Your task to perform on an android device: check google app version Image 0: 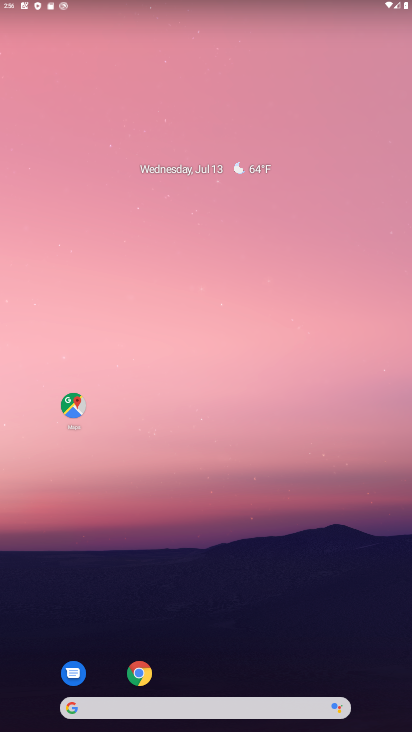
Step 0: drag from (305, 632) to (339, 88)
Your task to perform on an android device: check google app version Image 1: 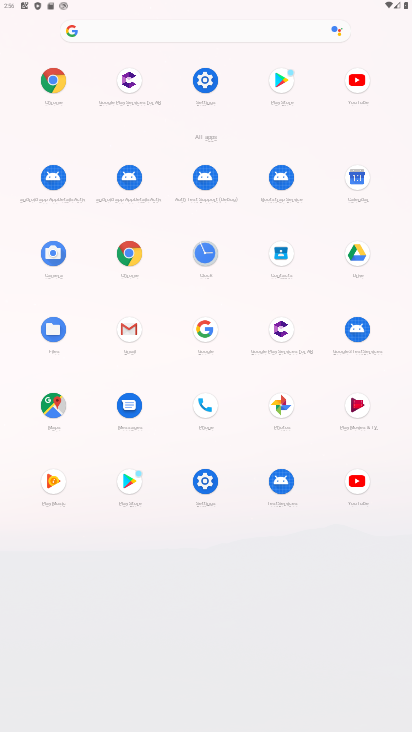
Step 1: click (211, 325)
Your task to perform on an android device: check google app version Image 2: 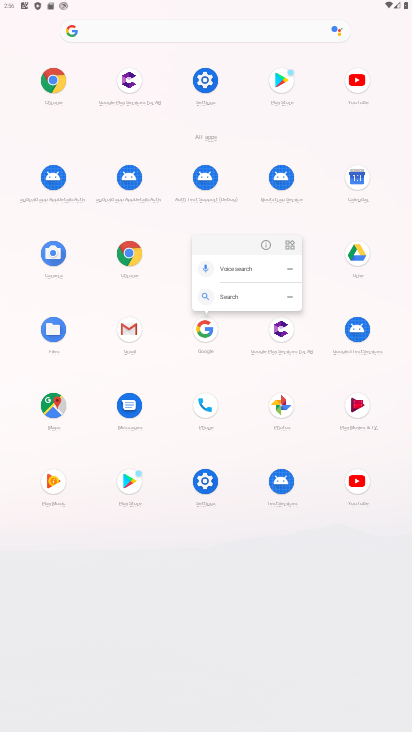
Step 2: click (262, 242)
Your task to perform on an android device: check google app version Image 3: 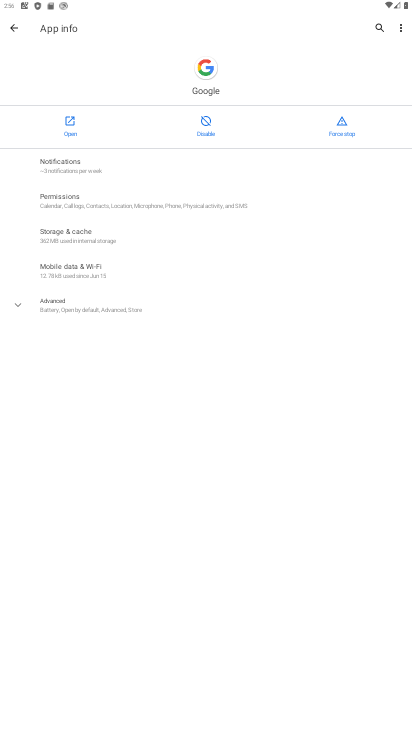
Step 3: click (90, 308)
Your task to perform on an android device: check google app version Image 4: 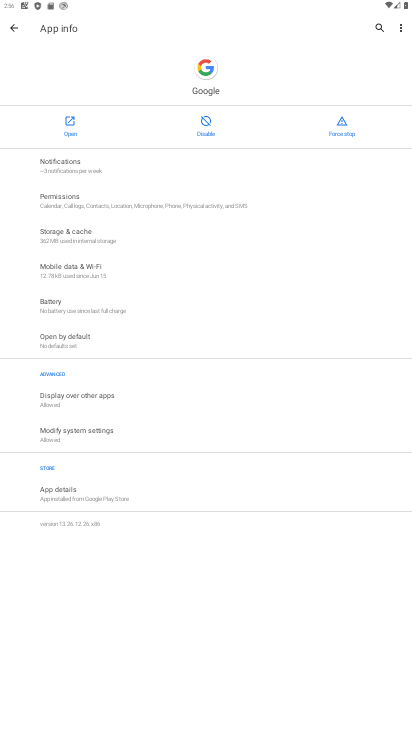
Step 4: task complete